Your task to perform on an android device: Who is the president of France? Image 0: 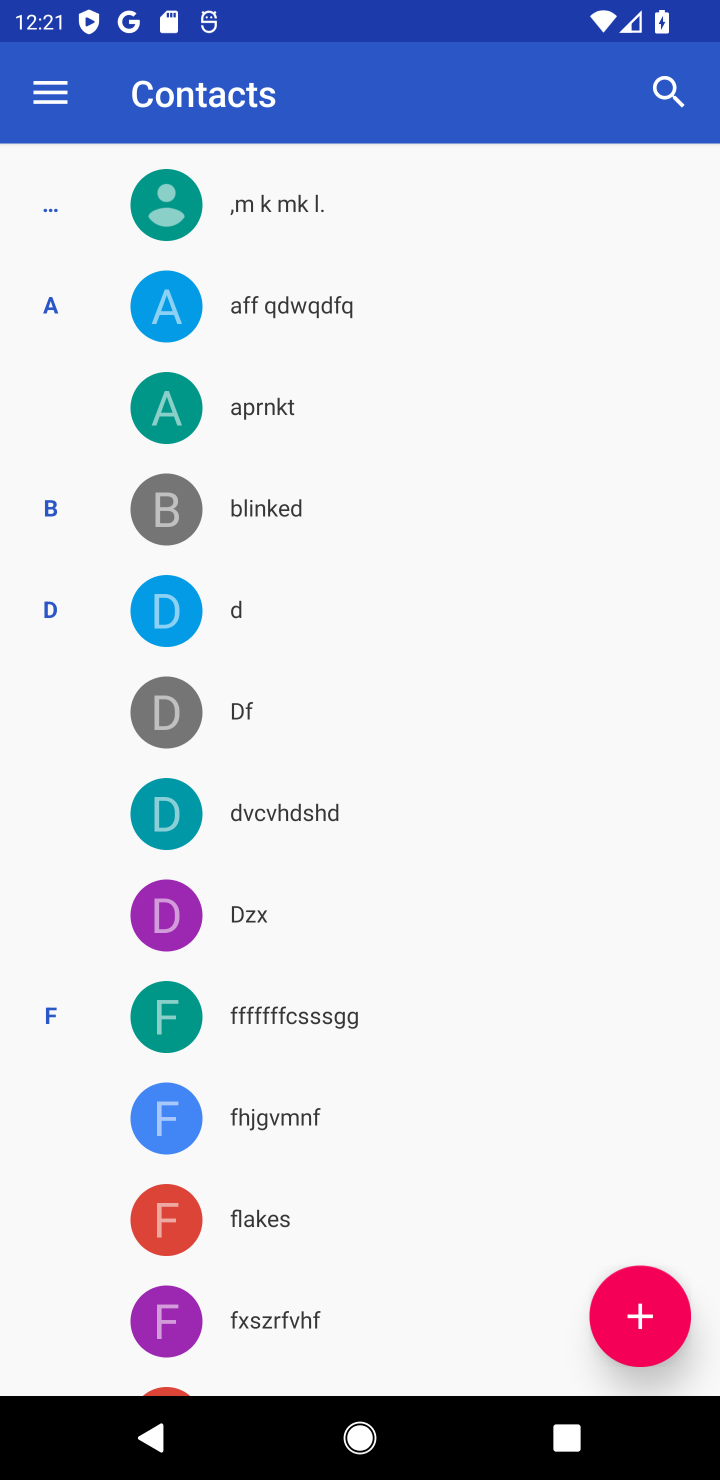
Step 0: press home button
Your task to perform on an android device: Who is the president of France? Image 1: 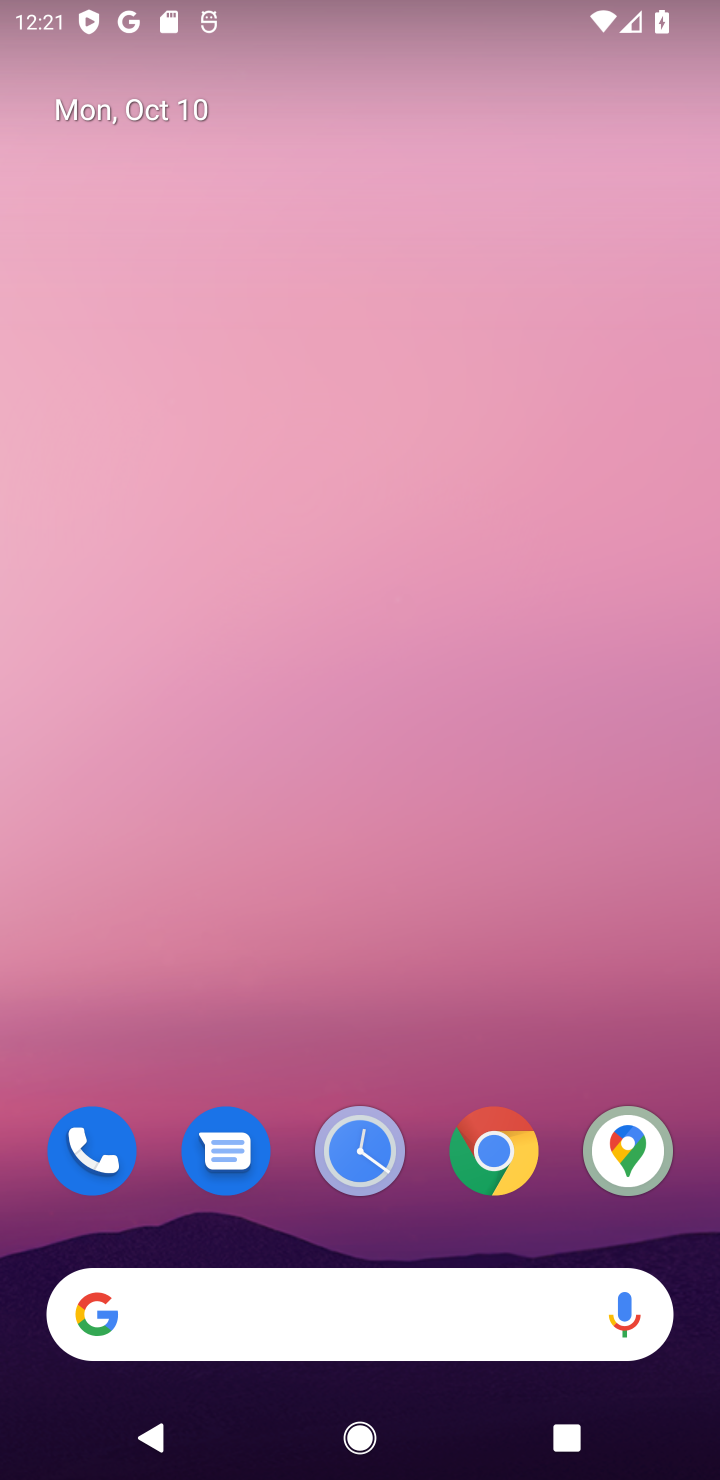
Step 1: click (212, 1303)
Your task to perform on an android device: Who is the president of France? Image 2: 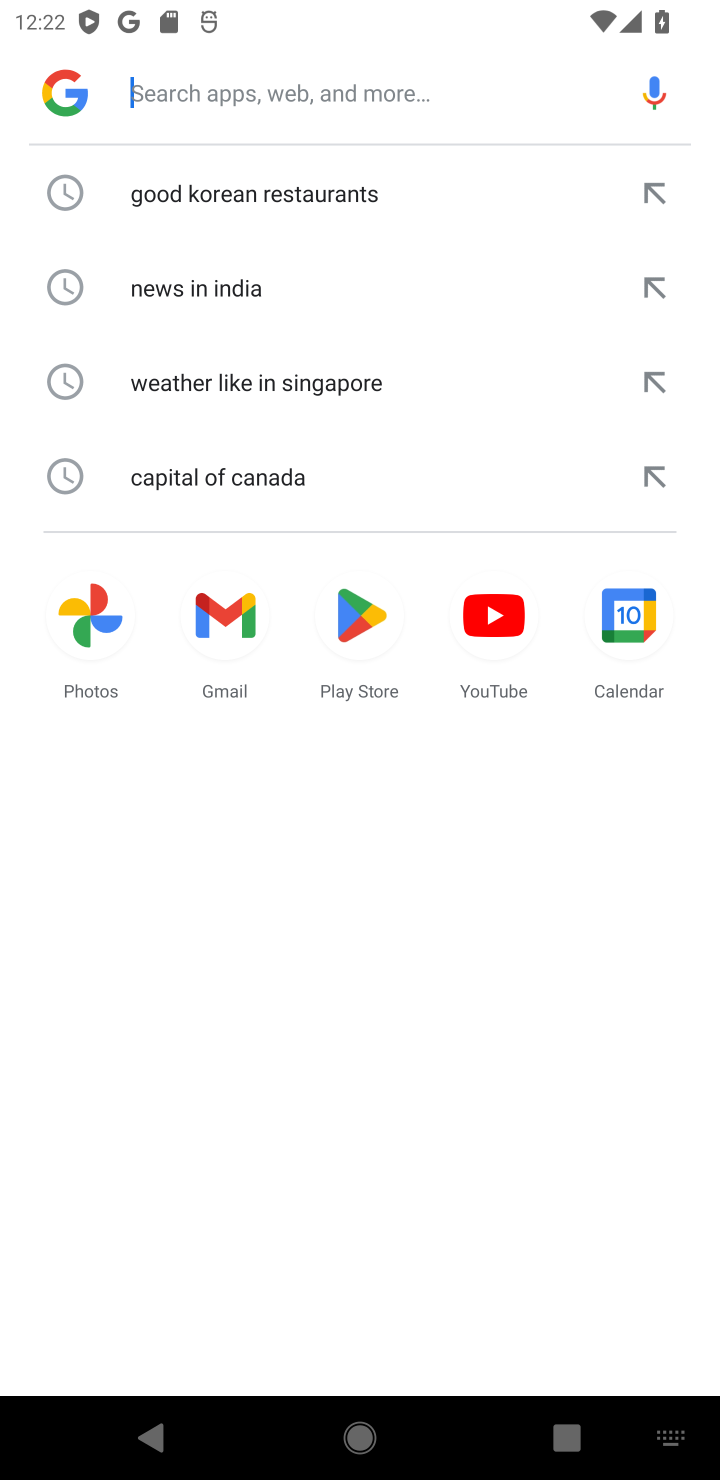
Step 2: type "who nis the president of france"
Your task to perform on an android device: Who is the president of France? Image 3: 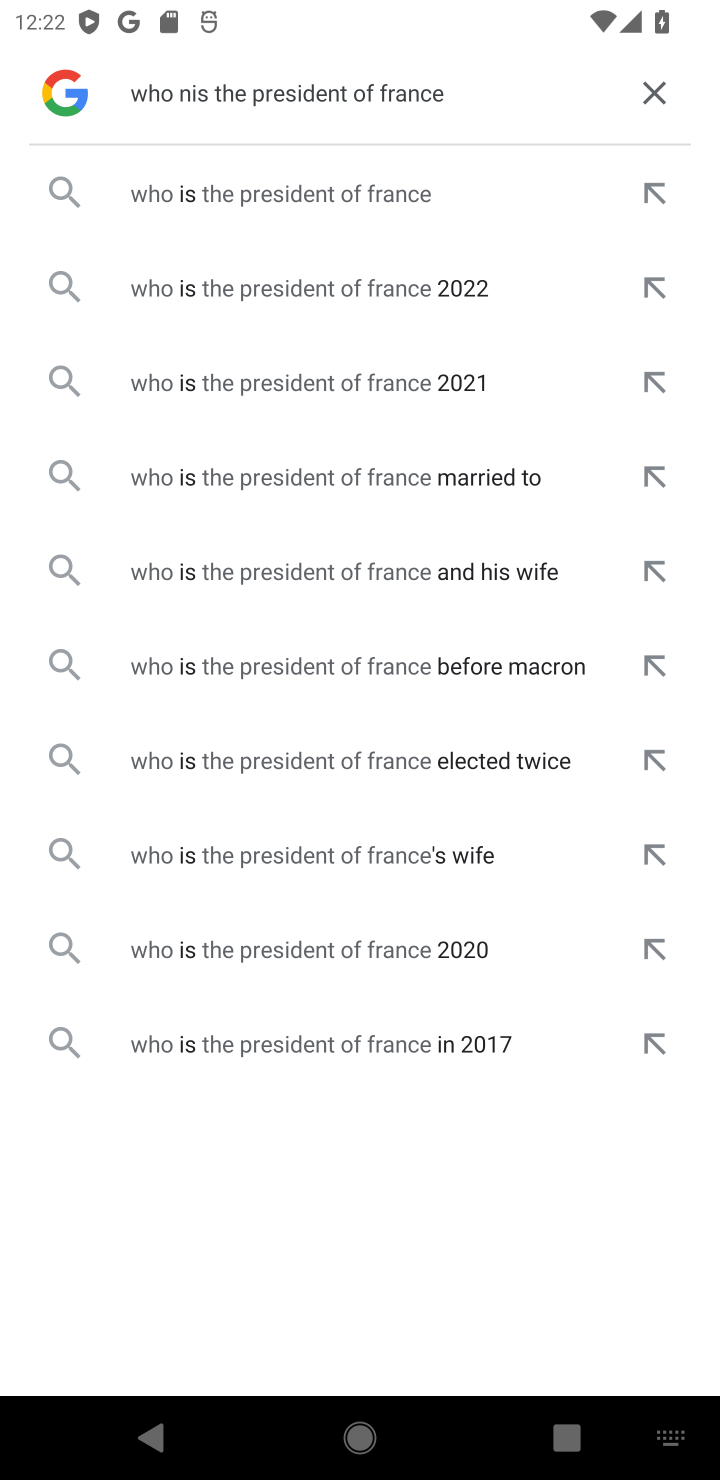
Step 3: click (299, 198)
Your task to perform on an android device: Who is the president of France? Image 4: 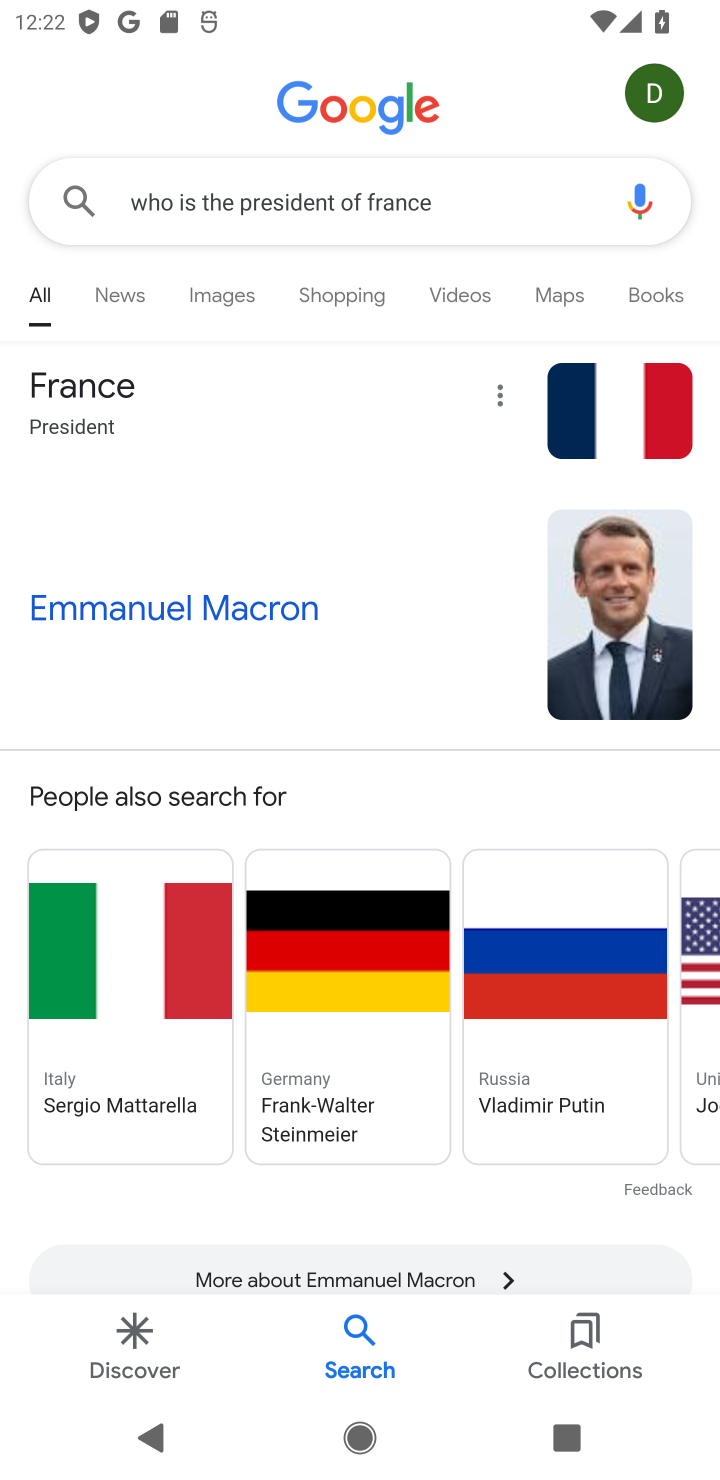
Step 4: task complete